Your task to perform on an android device: open app "Mercado Libre" (install if not already installed) Image 0: 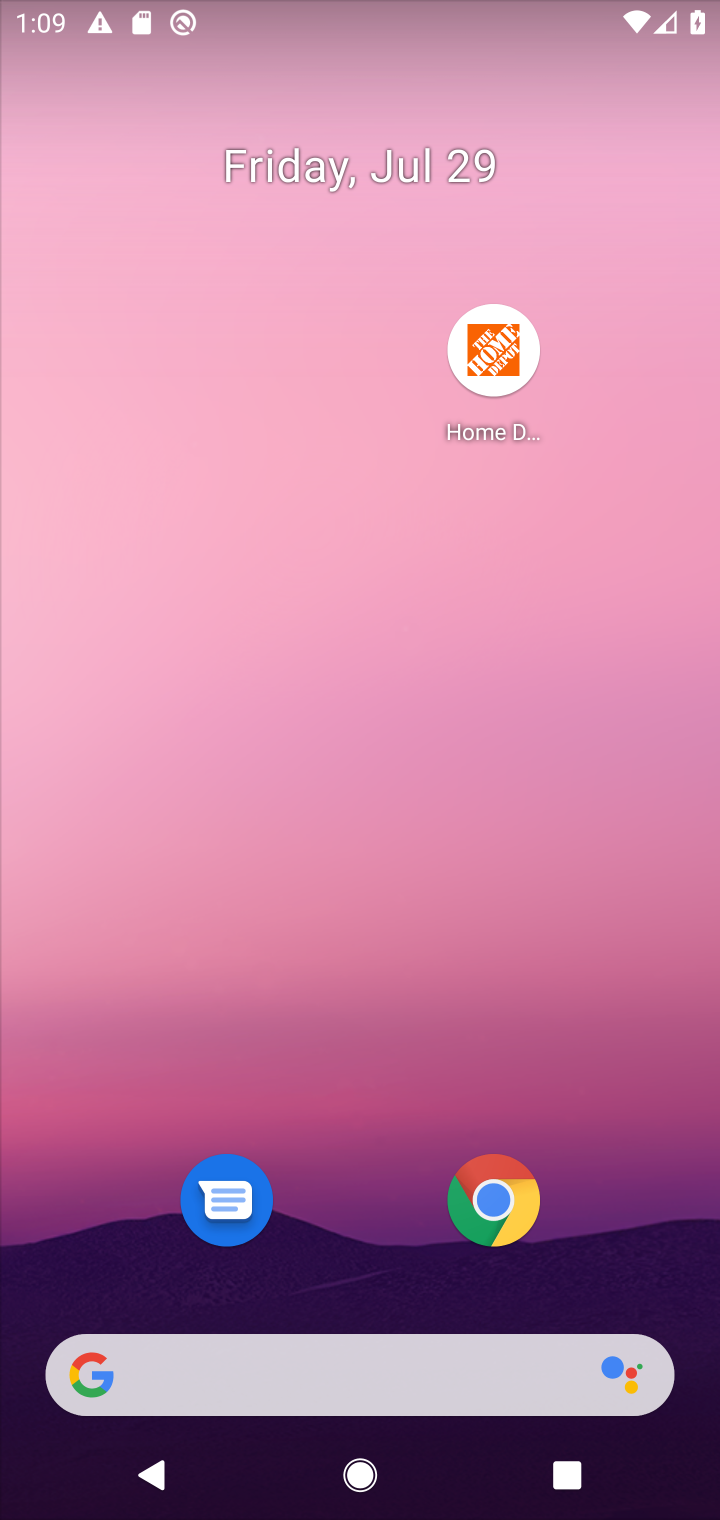
Step 0: drag from (621, 965) to (335, 145)
Your task to perform on an android device: open app "Mercado Libre" (install if not already installed) Image 1: 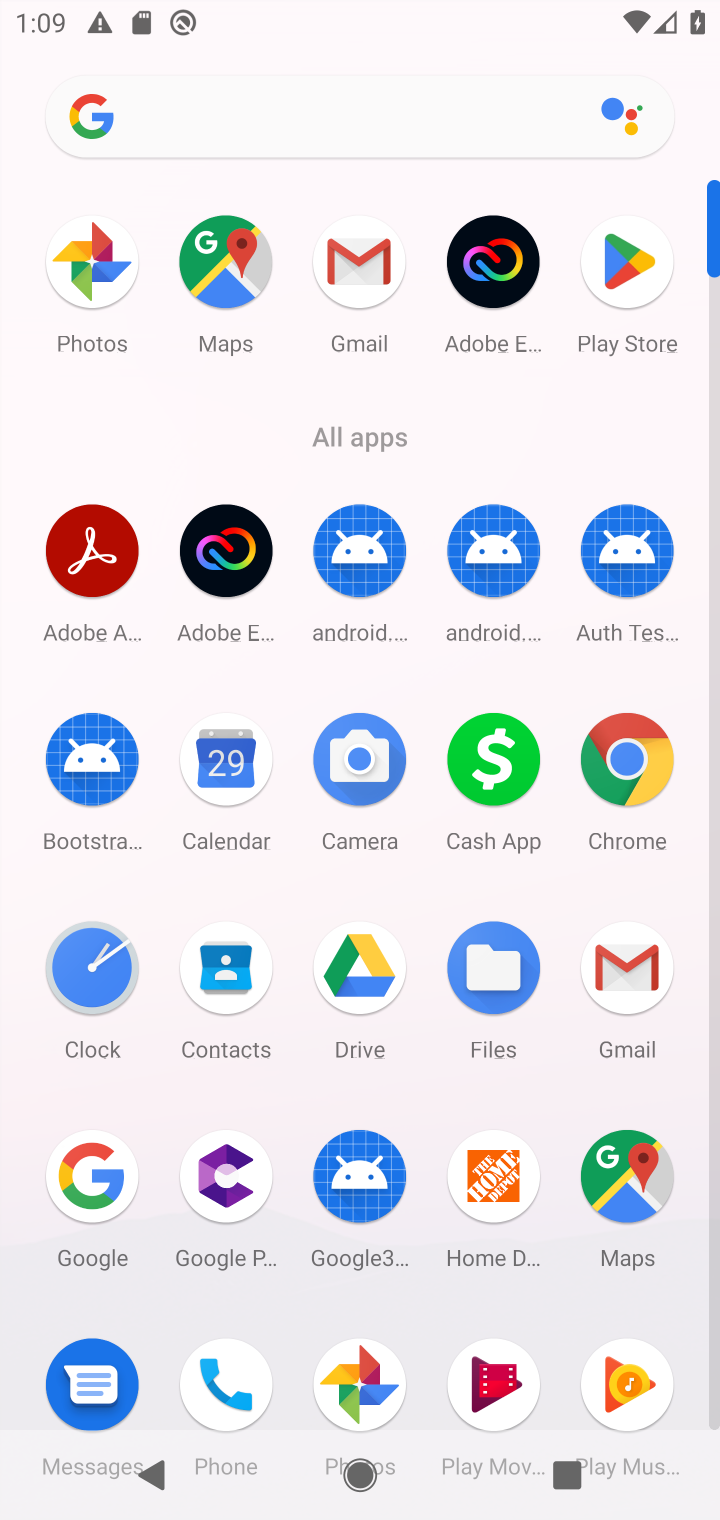
Step 1: click (630, 253)
Your task to perform on an android device: open app "Mercado Libre" (install if not already installed) Image 2: 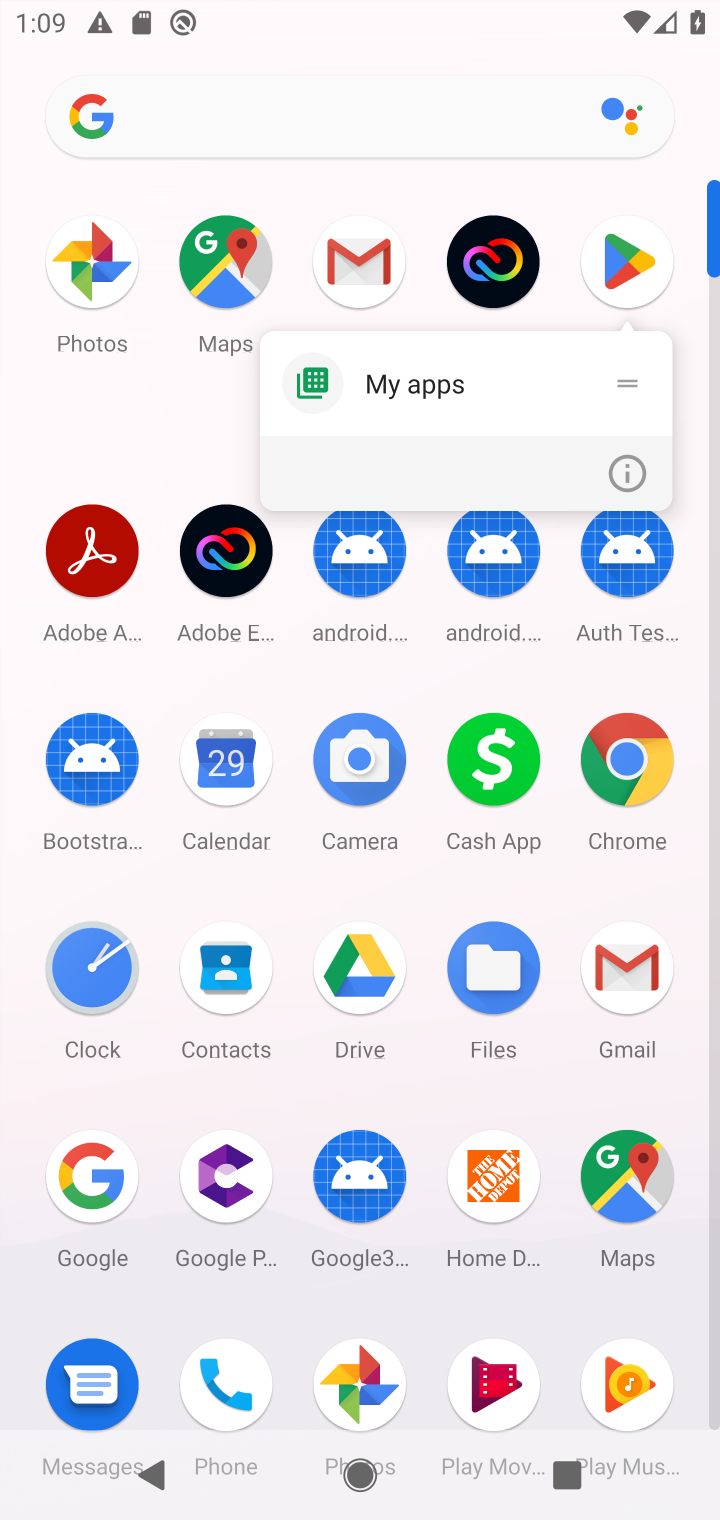
Step 2: click (630, 265)
Your task to perform on an android device: open app "Mercado Libre" (install if not already installed) Image 3: 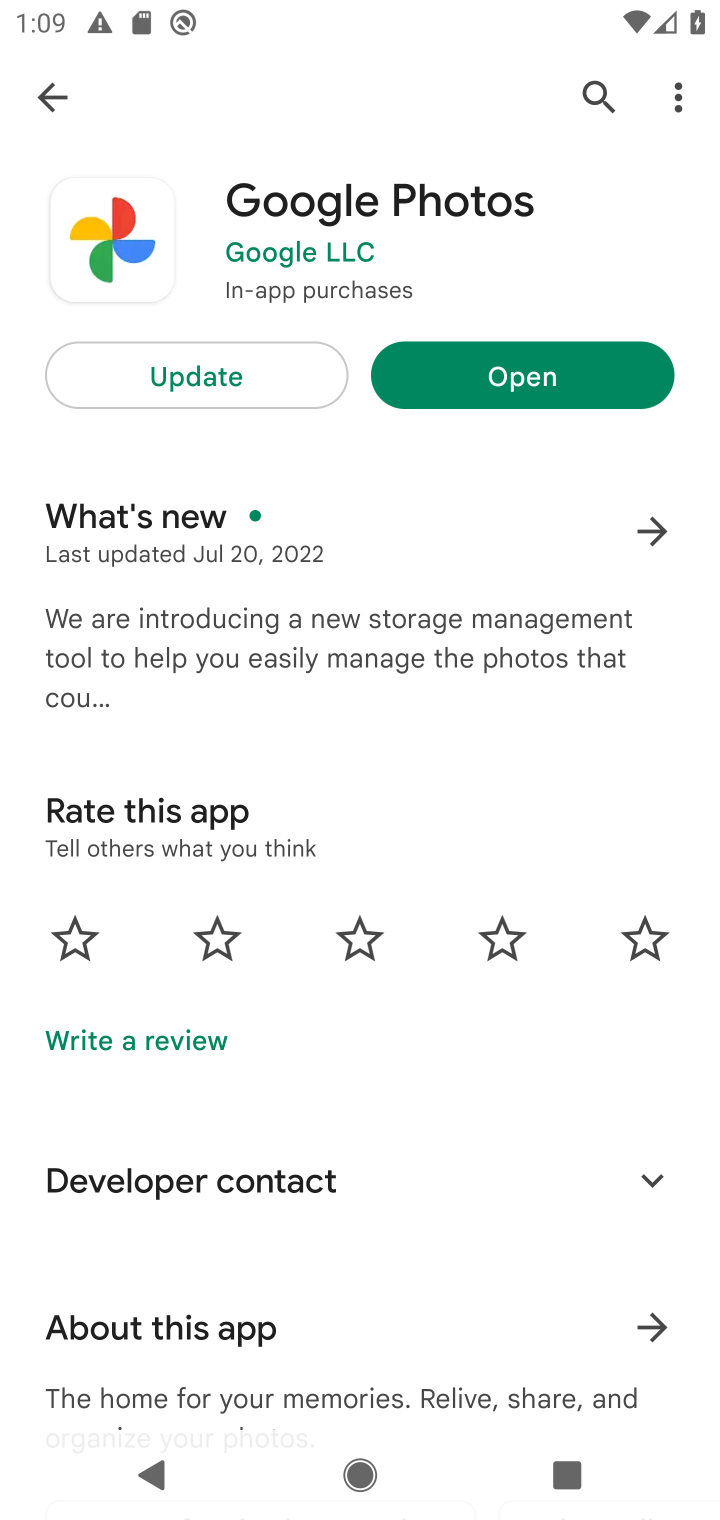
Step 3: click (582, 94)
Your task to perform on an android device: open app "Mercado Libre" (install if not already installed) Image 4: 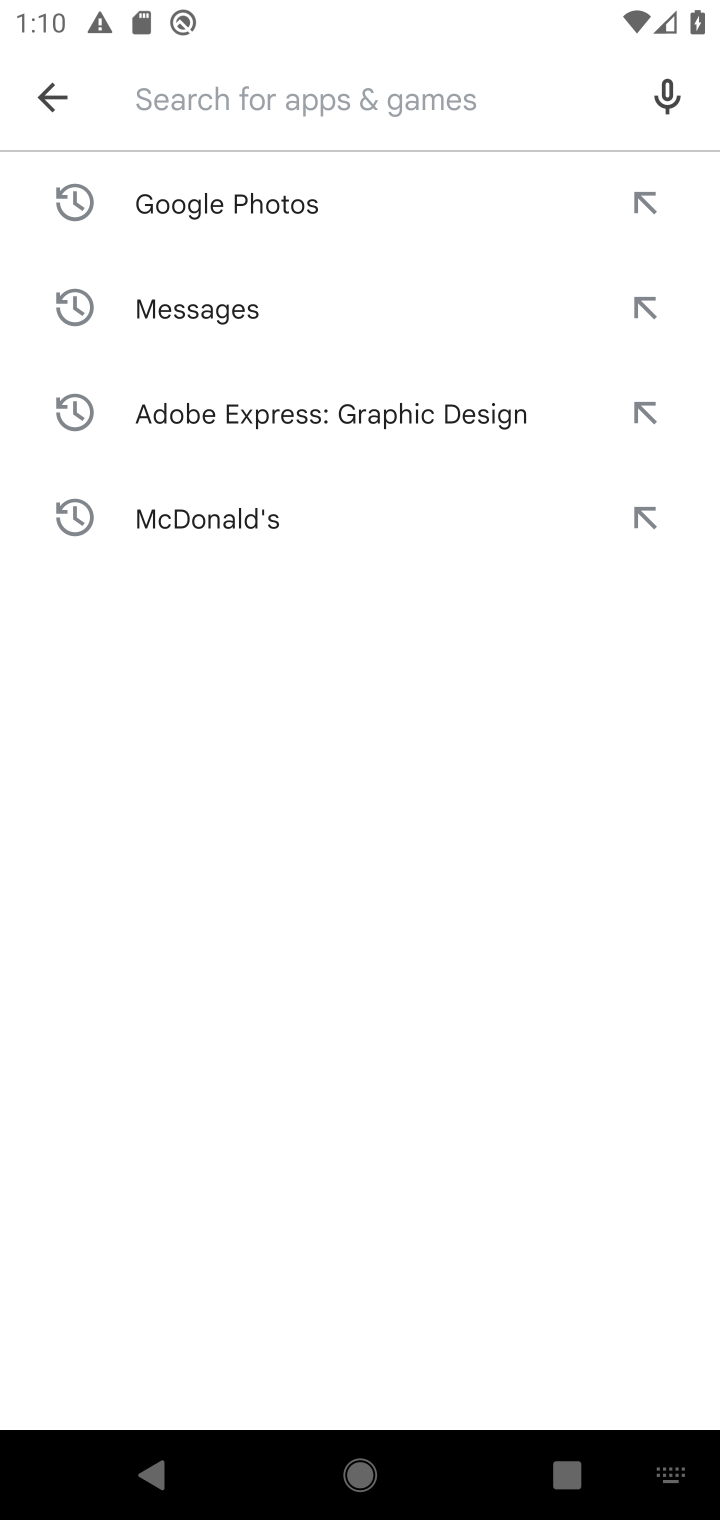
Step 4: type "Mercado  Libre"
Your task to perform on an android device: open app "Mercado Libre" (install if not already installed) Image 5: 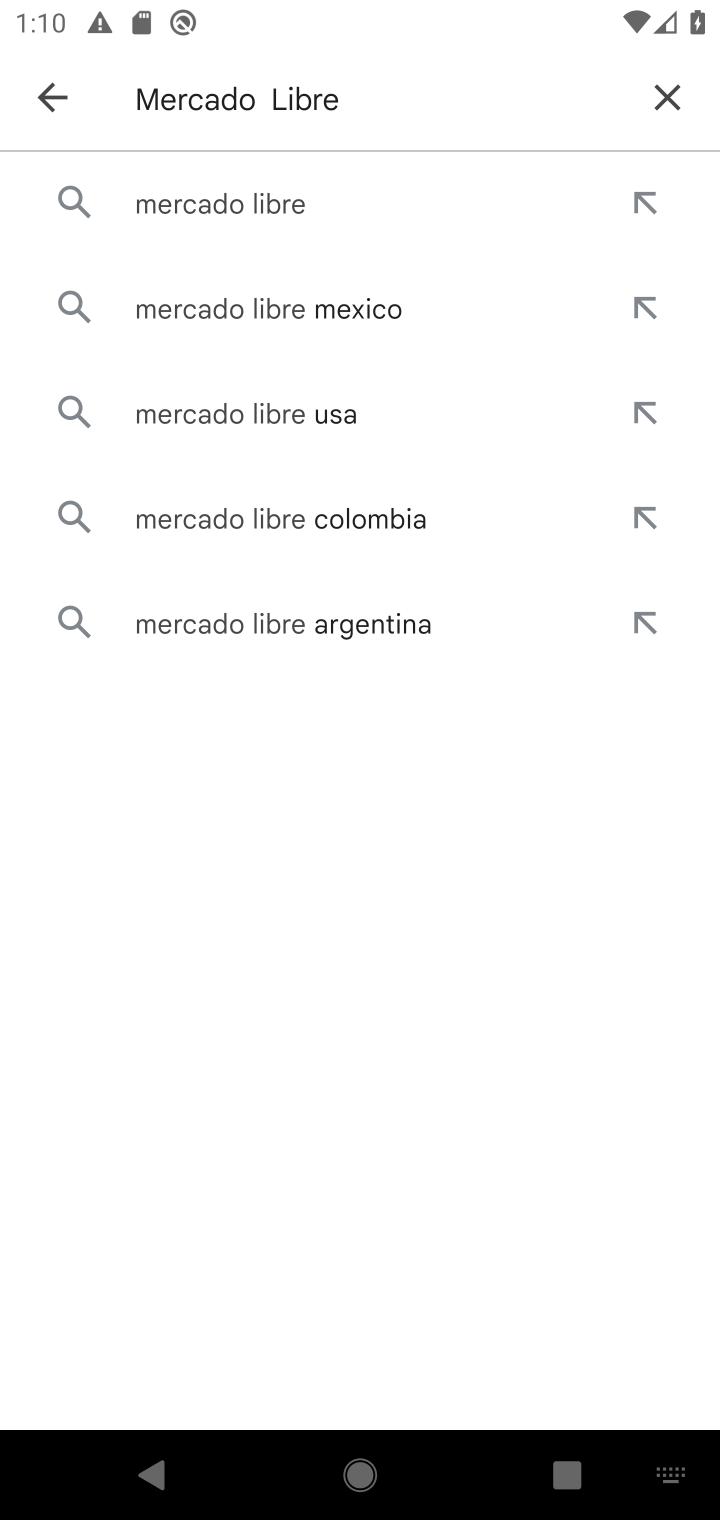
Step 5: press enter
Your task to perform on an android device: open app "Mercado Libre" (install if not already installed) Image 6: 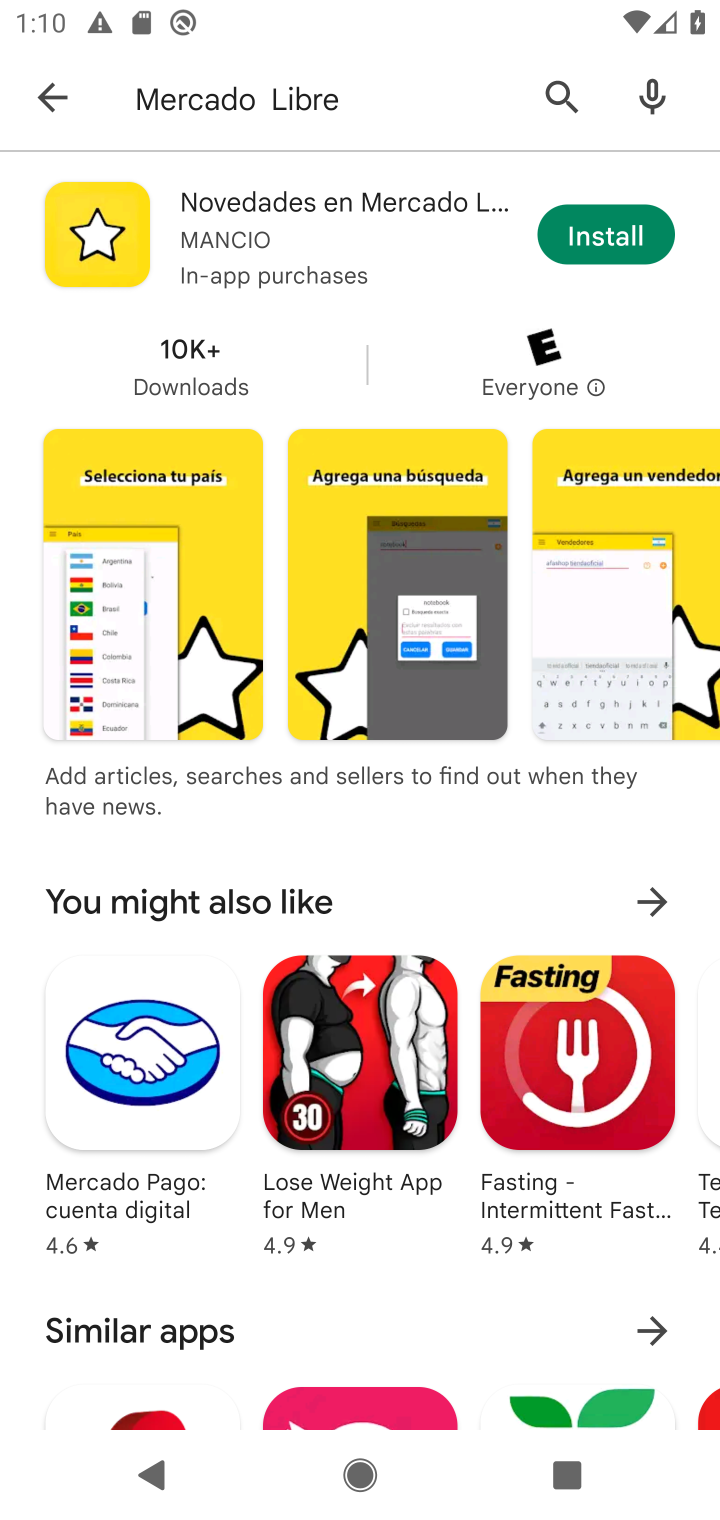
Step 6: click (625, 216)
Your task to perform on an android device: open app "Mercado Libre" (install if not already installed) Image 7: 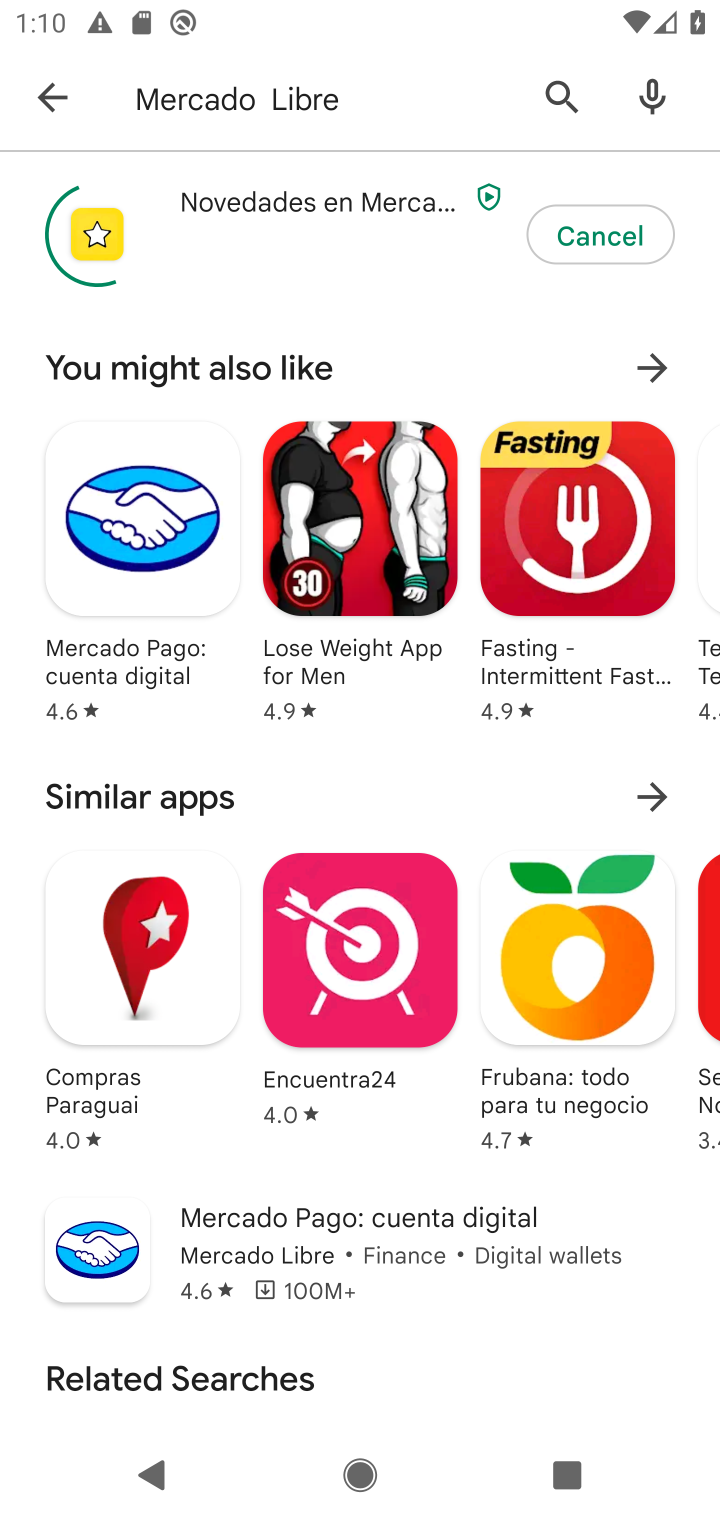
Step 7: click (356, 215)
Your task to perform on an android device: open app "Mercado Libre" (install if not already installed) Image 8: 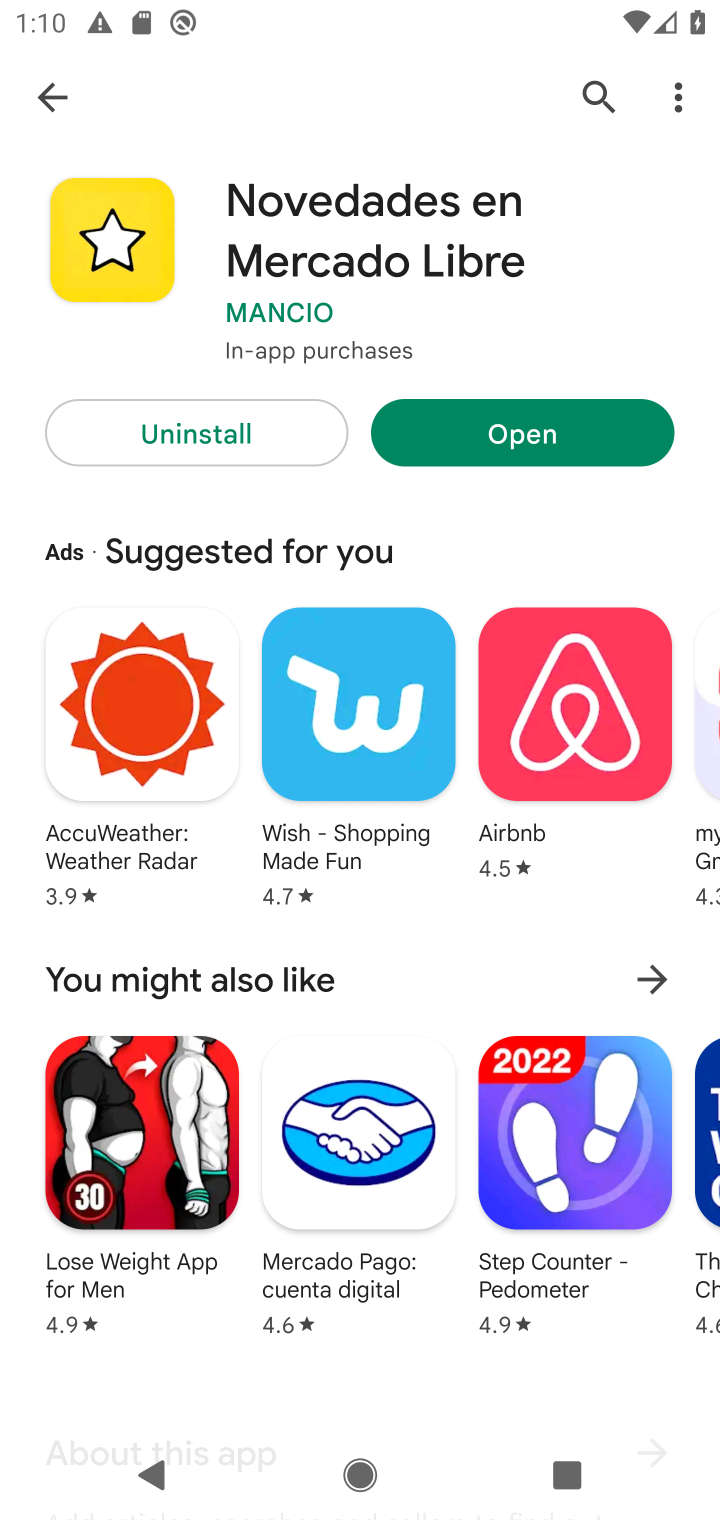
Step 8: click (548, 437)
Your task to perform on an android device: open app "Mercado Libre" (install if not already installed) Image 9: 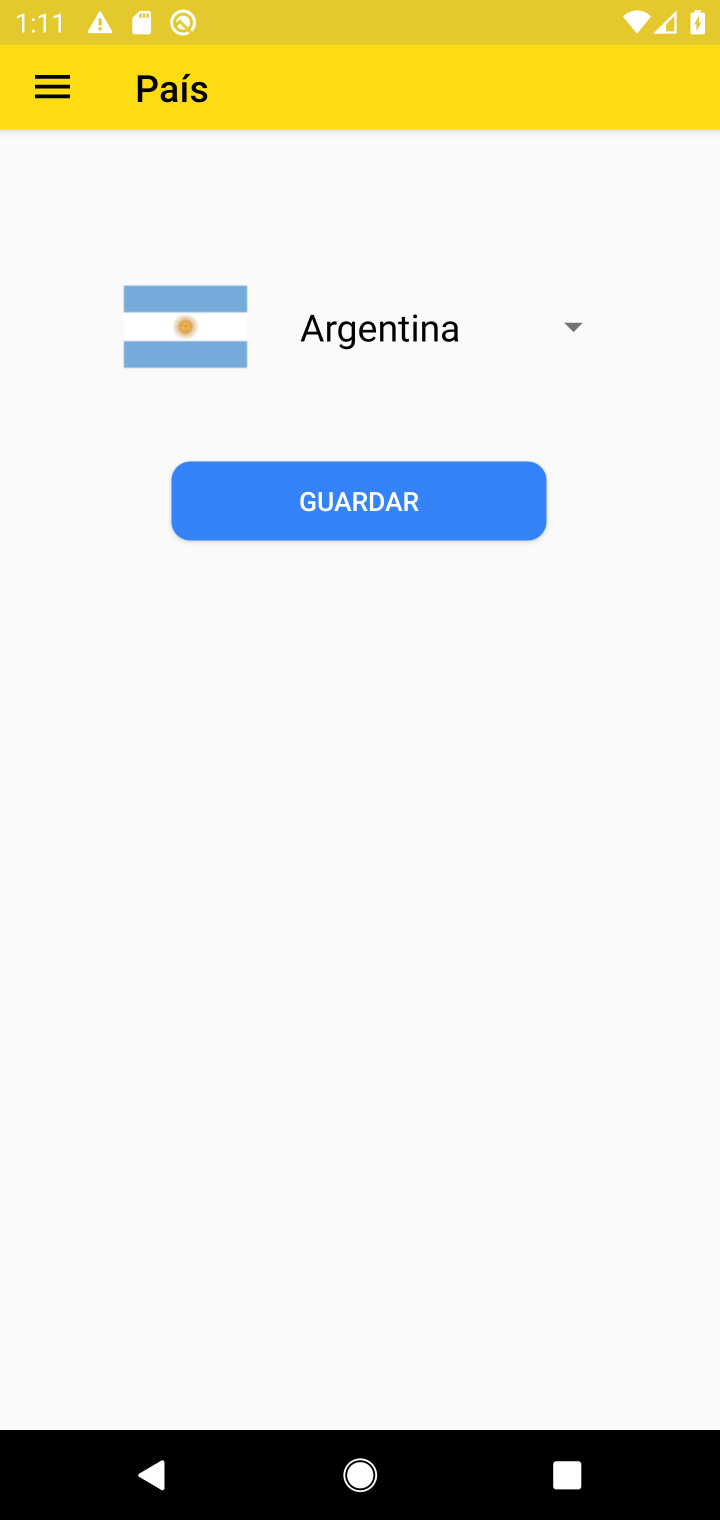
Step 9: task complete